Your task to perform on an android device: Show me popular games on the Play Store Image 0: 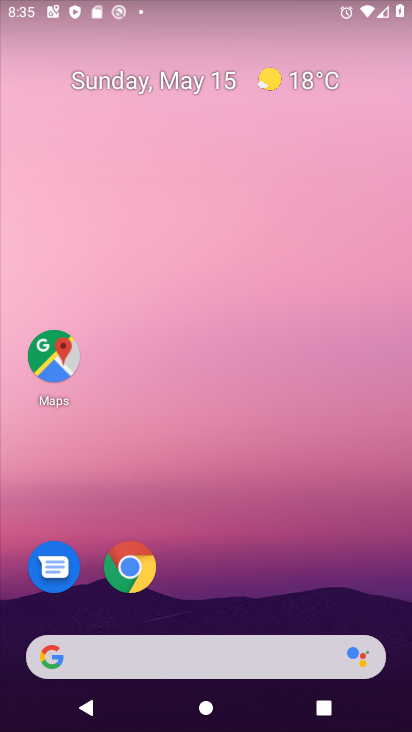
Step 0: drag from (153, 702) to (166, 133)
Your task to perform on an android device: Show me popular games on the Play Store Image 1: 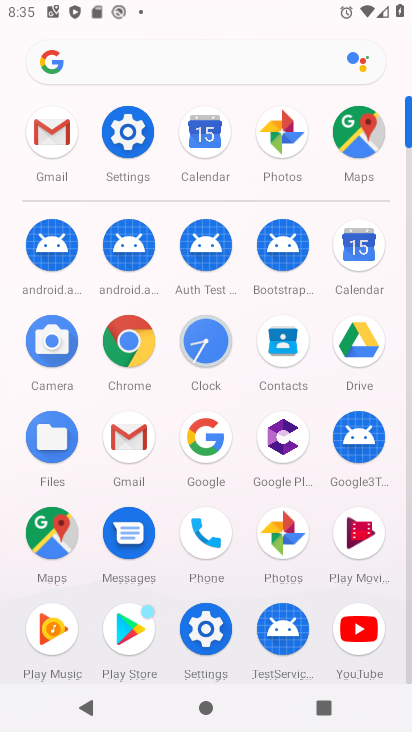
Step 1: click (106, 635)
Your task to perform on an android device: Show me popular games on the Play Store Image 2: 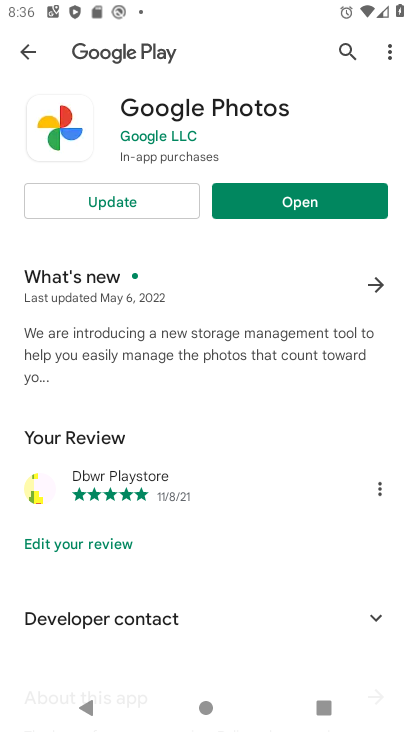
Step 2: click (15, 48)
Your task to perform on an android device: Show me popular games on the Play Store Image 3: 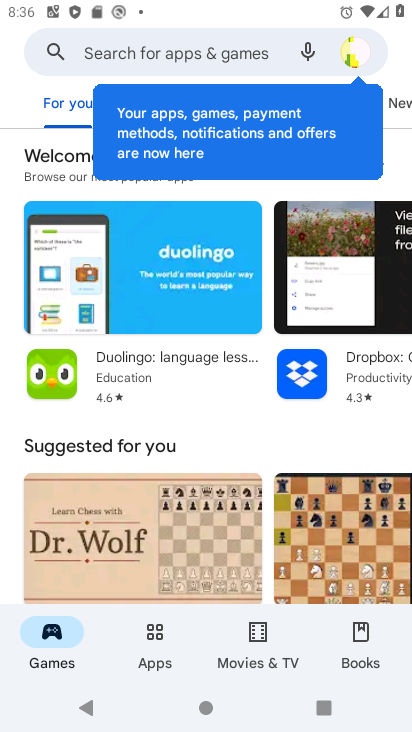
Step 3: task complete